Your task to perform on an android device: Show me popular games on the Play Store Image 0: 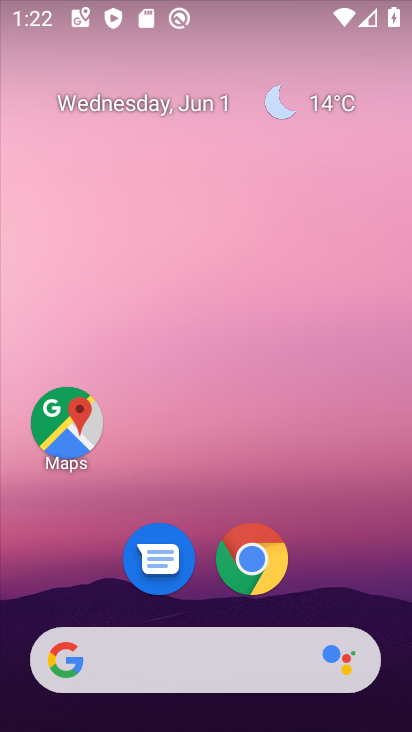
Step 0: drag from (366, 558) to (358, 156)
Your task to perform on an android device: Show me popular games on the Play Store Image 1: 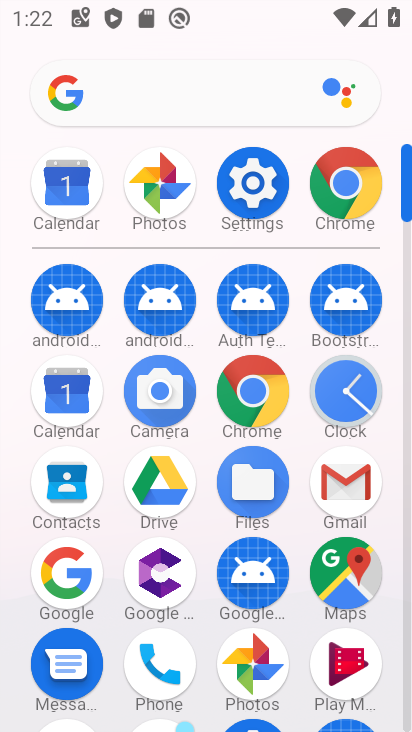
Step 1: drag from (202, 686) to (188, 287)
Your task to perform on an android device: Show me popular games on the Play Store Image 2: 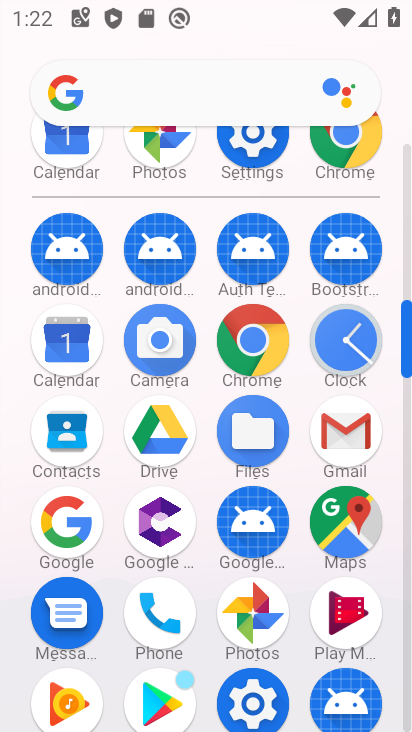
Step 2: drag from (202, 553) to (191, 130)
Your task to perform on an android device: Show me popular games on the Play Store Image 3: 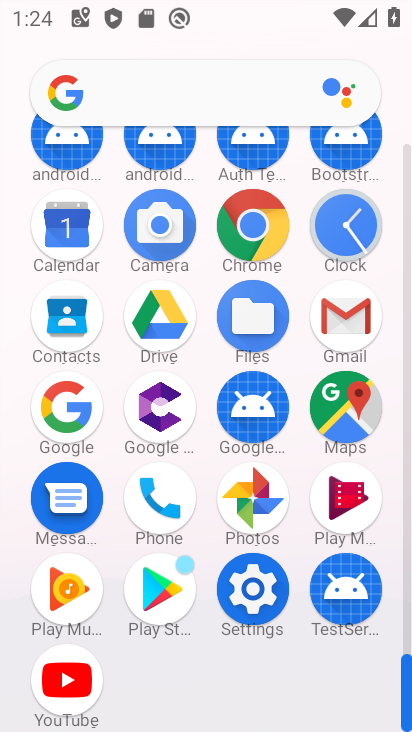
Step 3: click (159, 602)
Your task to perform on an android device: Show me popular games on the Play Store Image 4: 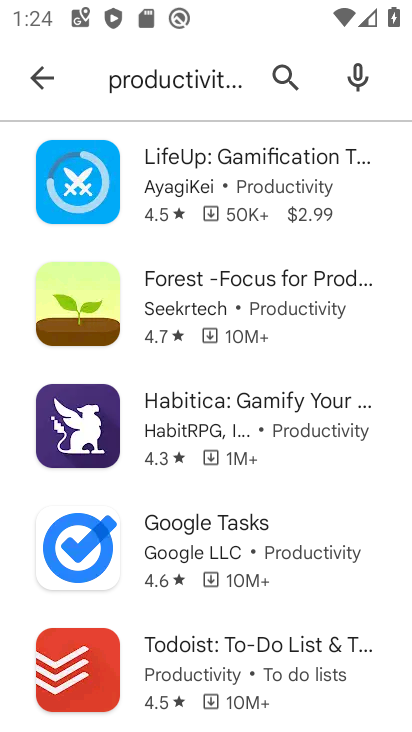
Step 4: click (252, 78)
Your task to perform on an android device: Show me popular games on the Play Store Image 5: 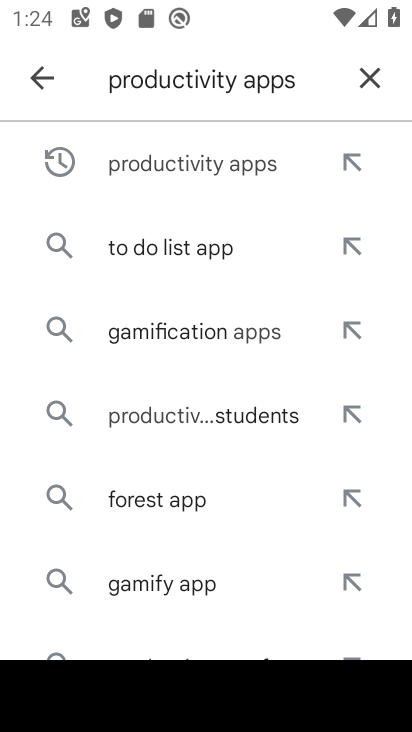
Step 5: click (373, 78)
Your task to perform on an android device: Show me popular games on the Play Store Image 6: 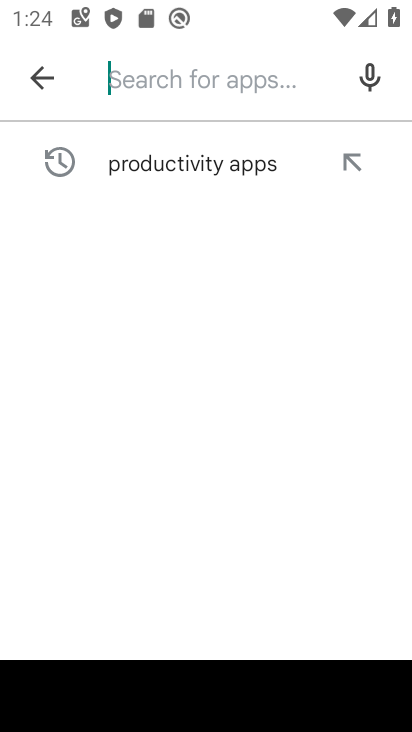
Step 6: type "popular games "
Your task to perform on an android device: Show me popular games on the Play Store Image 7: 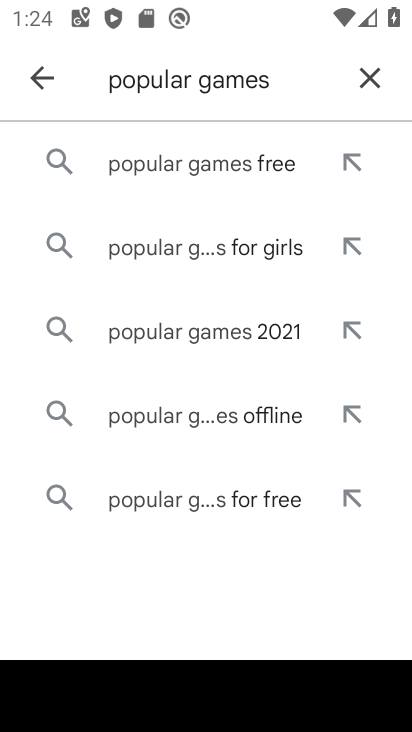
Step 7: click (212, 174)
Your task to perform on an android device: Show me popular games on the Play Store Image 8: 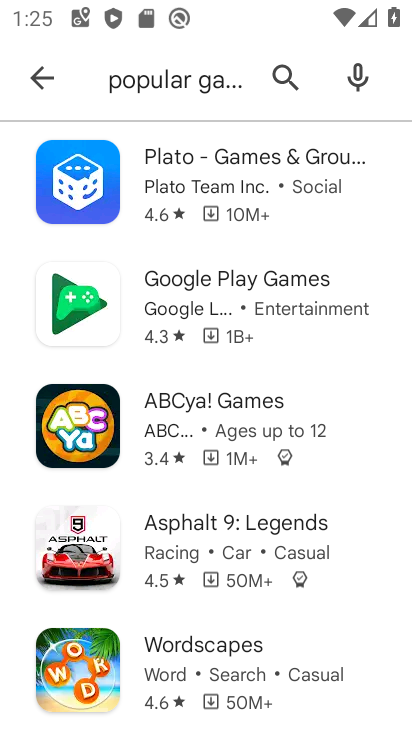
Step 8: task complete